Your task to perform on an android device: Open the map Image 0: 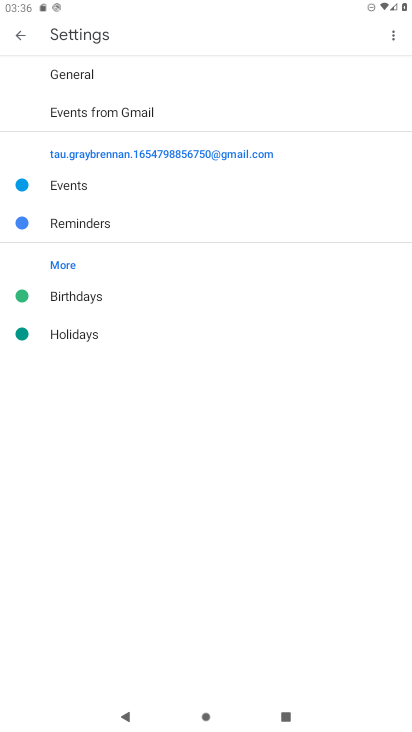
Step 0: press home button
Your task to perform on an android device: Open the map Image 1: 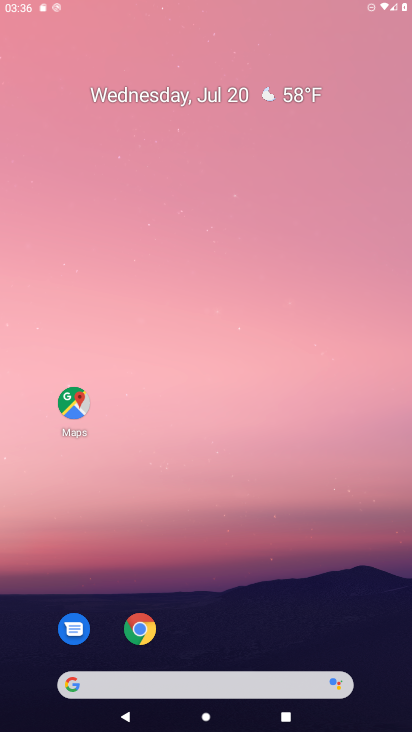
Step 1: drag from (314, 674) to (312, 213)
Your task to perform on an android device: Open the map Image 2: 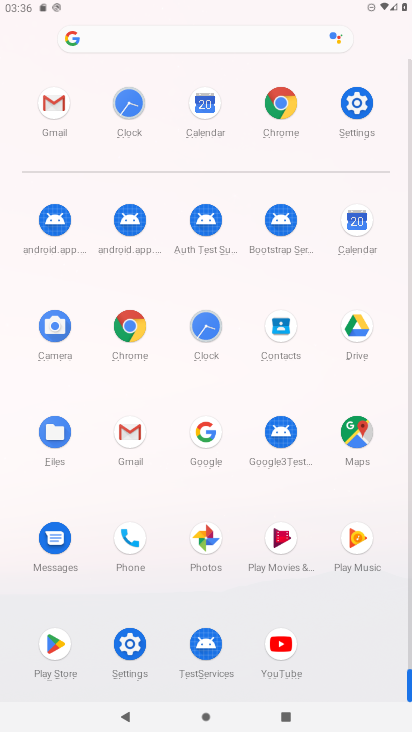
Step 2: click (358, 443)
Your task to perform on an android device: Open the map Image 3: 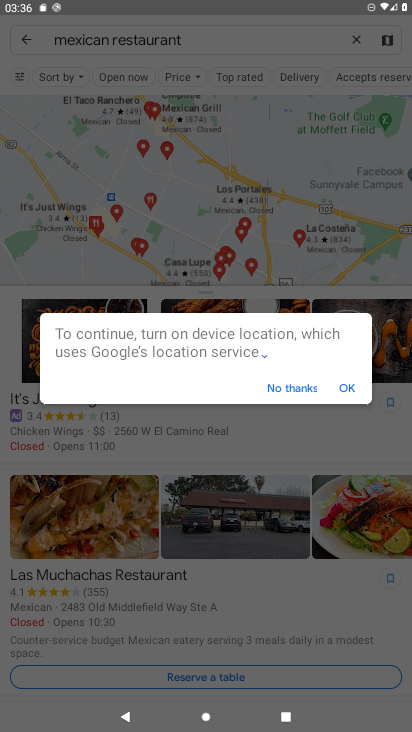
Step 3: click (290, 386)
Your task to perform on an android device: Open the map Image 4: 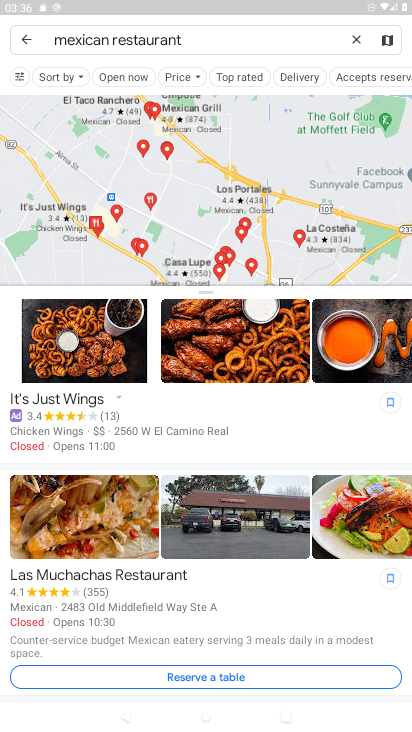
Step 4: task complete